Your task to perform on an android device: Turn off the flashlight Image 0: 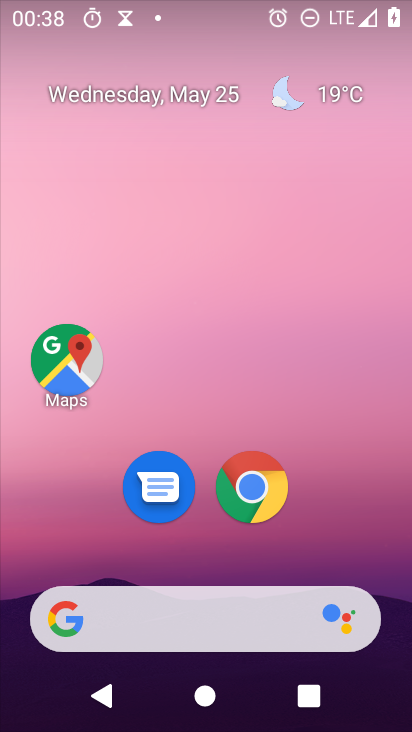
Step 0: drag from (209, 2) to (256, 638)
Your task to perform on an android device: Turn off the flashlight Image 1: 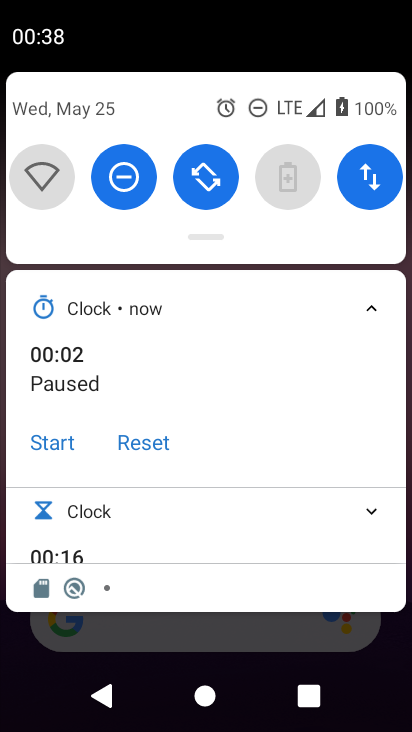
Step 1: task complete